Your task to perform on an android device: change notifications settings Image 0: 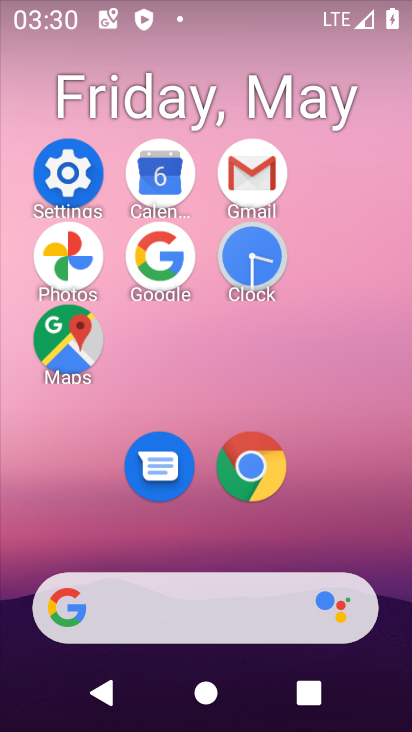
Step 0: click (91, 164)
Your task to perform on an android device: change notifications settings Image 1: 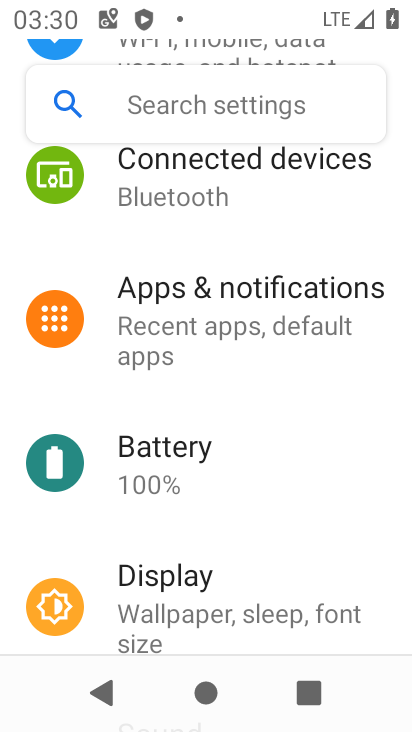
Step 1: click (280, 287)
Your task to perform on an android device: change notifications settings Image 2: 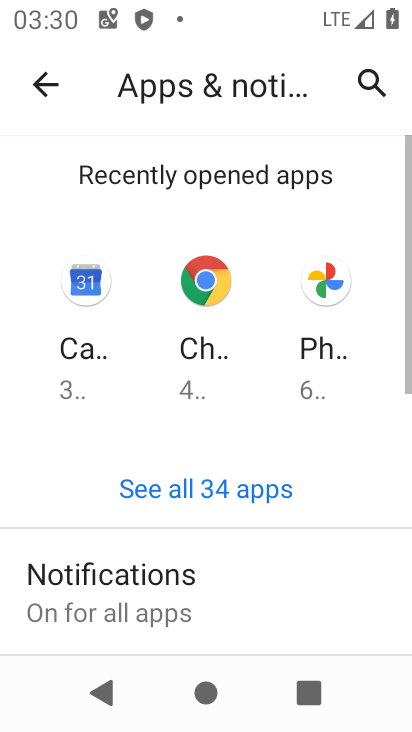
Step 2: click (167, 570)
Your task to perform on an android device: change notifications settings Image 3: 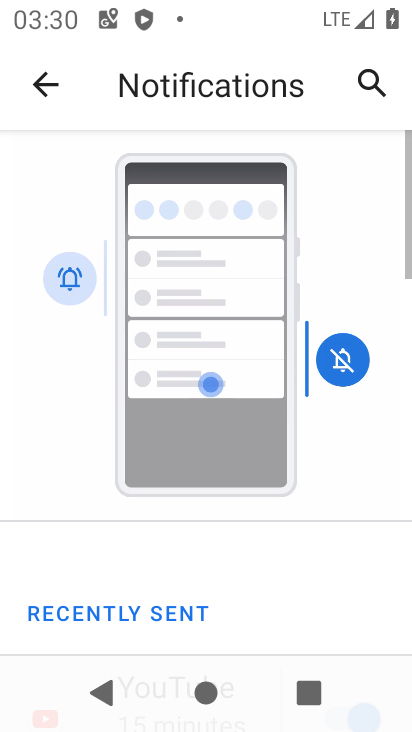
Step 3: drag from (235, 588) to (255, 143)
Your task to perform on an android device: change notifications settings Image 4: 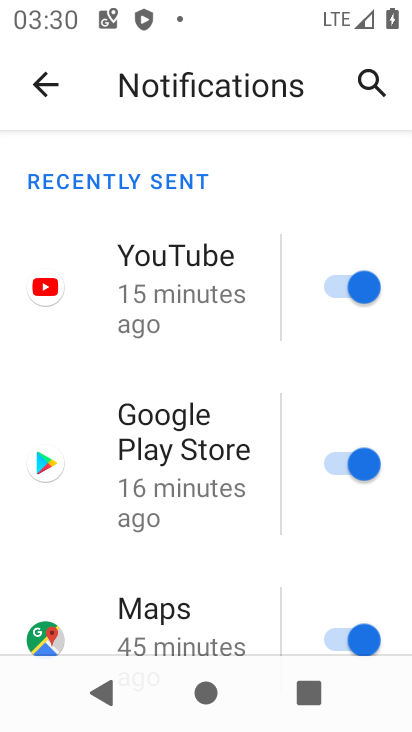
Step 4: drag from (248, 576) to (257, 69)
Your task to perform on an android device: change notifications settings Image 5: 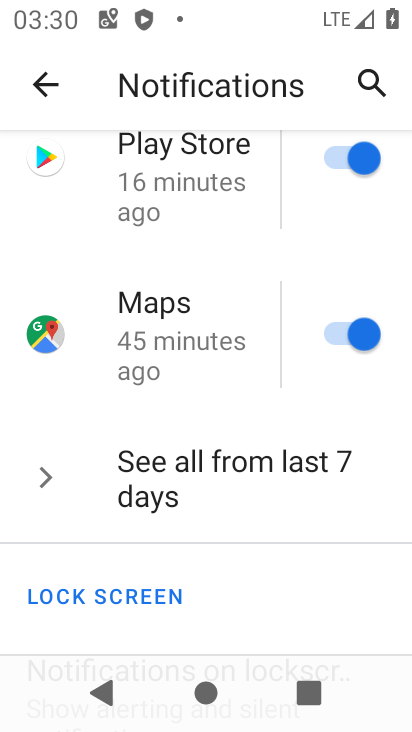
Step 5: drag from (181, 598) to (159, 100)
Your task to perform on an android device: change notifications settings Image 6: 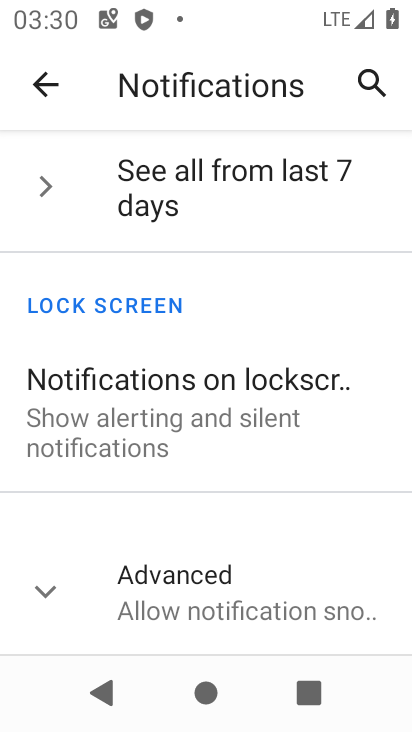
Step 6: click (193, 572)
Your task to perform on an android device: change notifications settings Image 7: 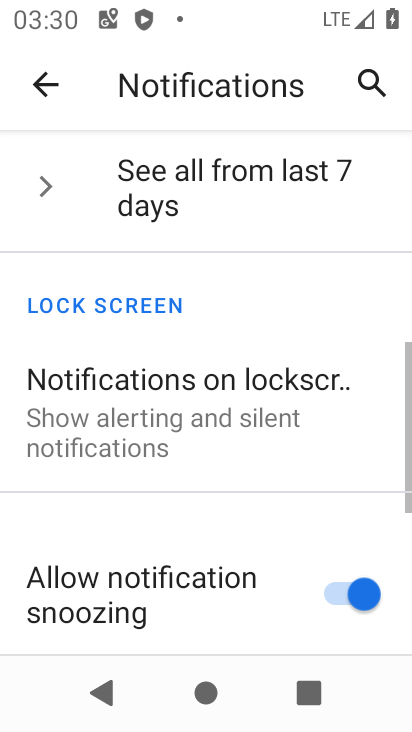
Step 7: click (382, 580)
Your task to perform on an android device: change notifications settings Image 8: 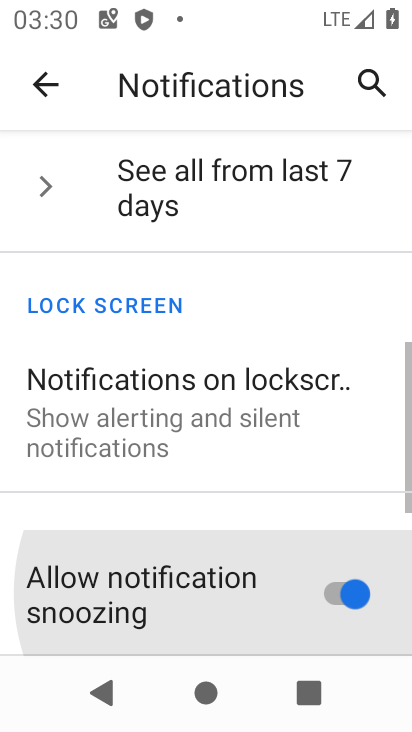
Step 8: drag from (267, 541) to (226, 23)
Your task to perform on an android device: change notifications settings Image 9: 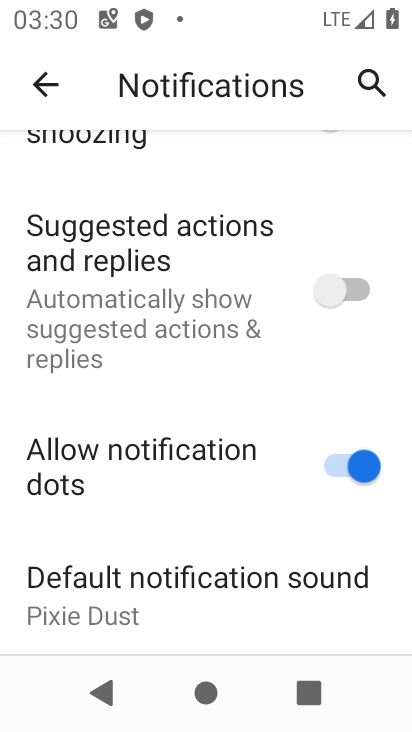
Step 9: click (325, 284)
Your task to perform on an android device: change notifications settings Image 10: 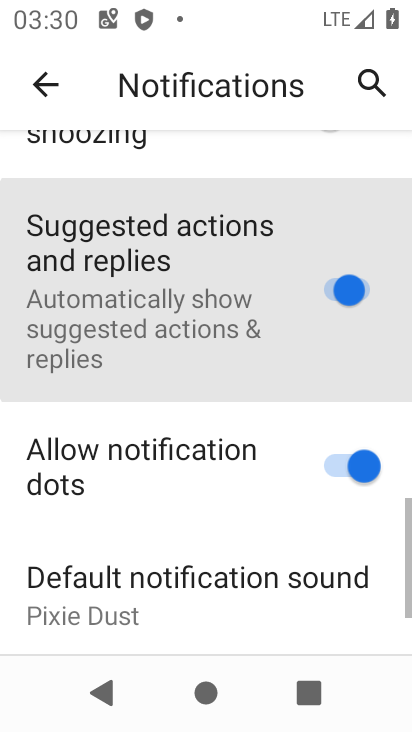
Step 10: click (359, 465)
Your task to perform on an android device: change notifications settings Image 11: 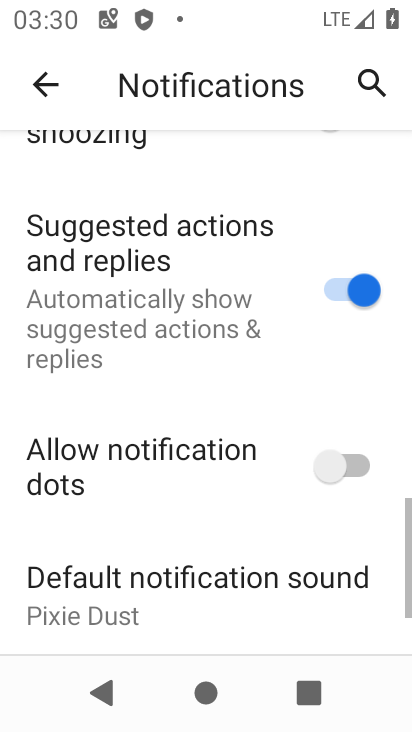
Step 11: task complete